Your task to perform on an android device: open app "LinkedIn" Image 0: 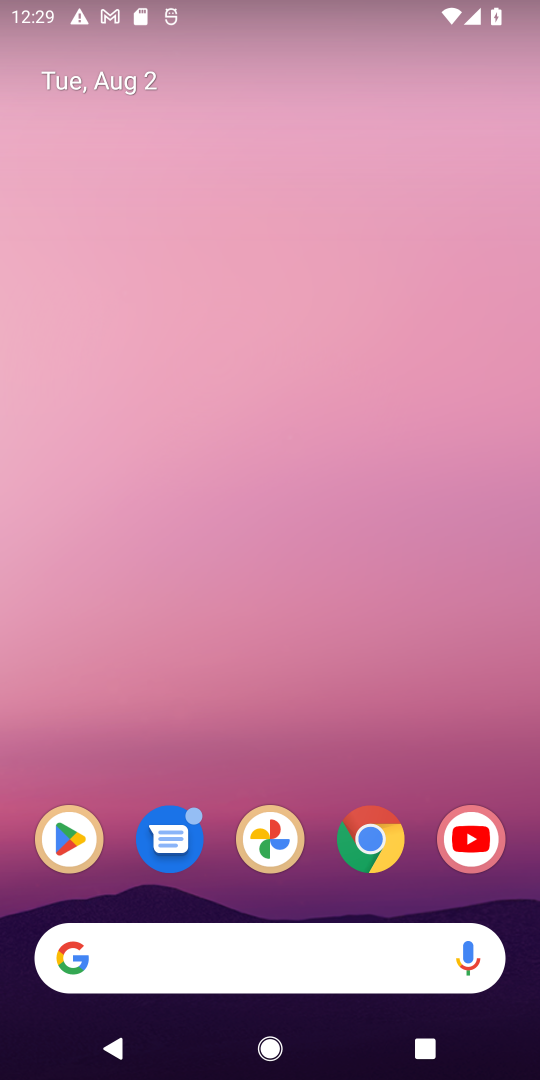
Step 0: click (59, 841)
Your task to perform on an android device: open app "LinkedIn" Image 1: 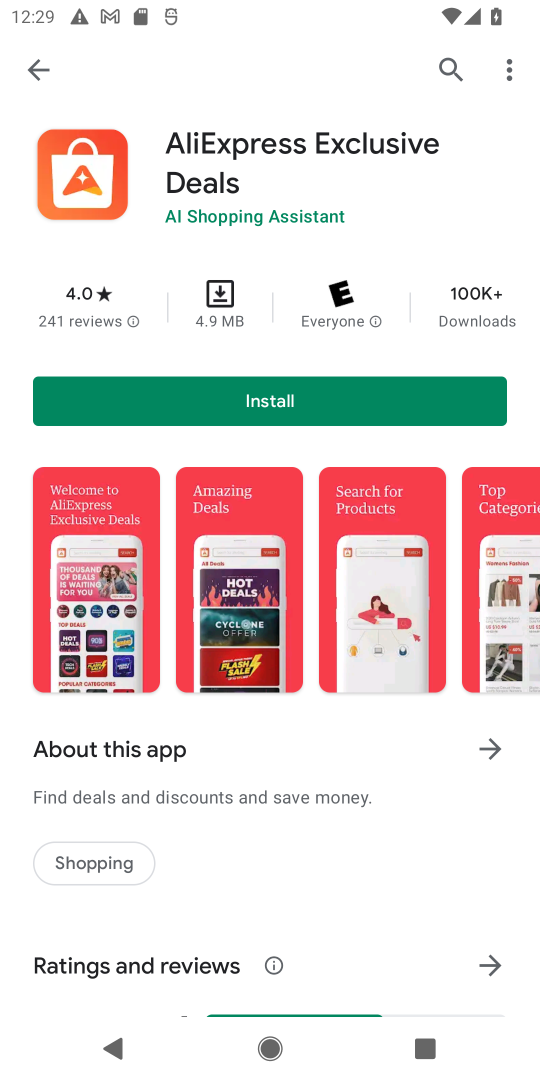
Step 1: click (442, 69)
Your task to perform on an android device: open app "LinkedIn" Image 2: 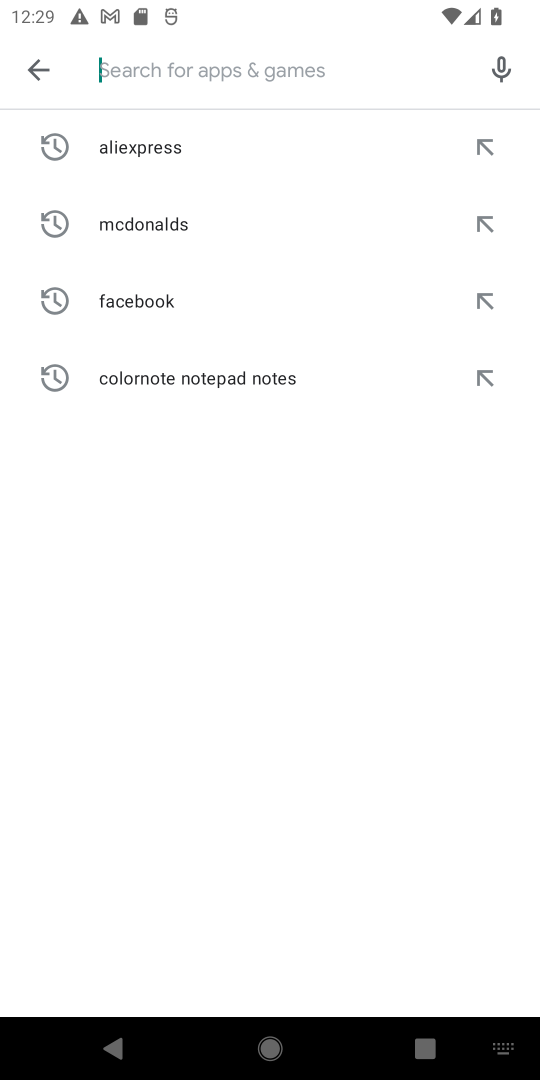
Step 2: type "linkedin"
Your task to perform on an android device: open app "LinkedIn" Image 3: 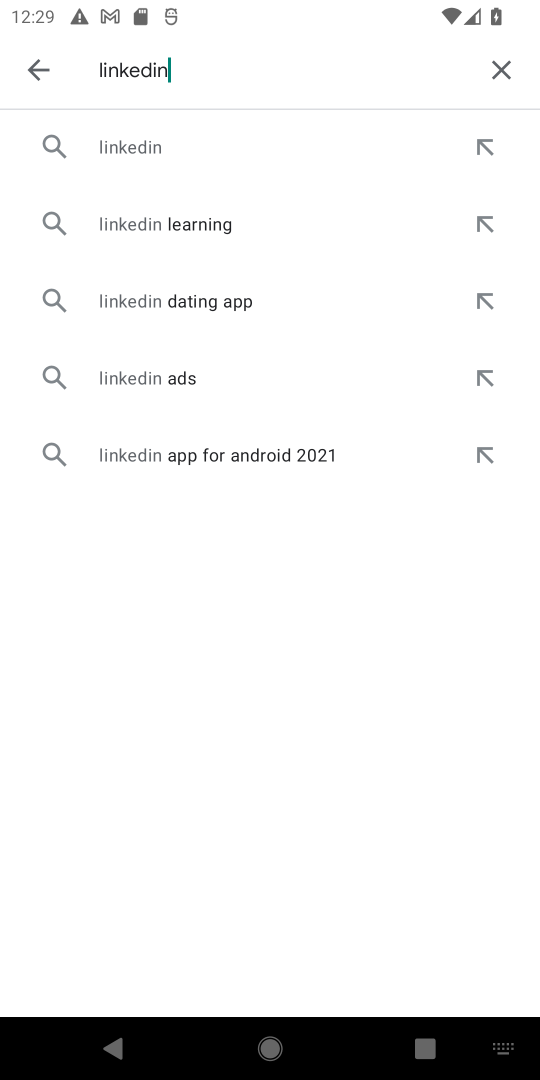
Step 3: click (202, 146)
Your task to perform on an android device: open app "LinkedIn" Image 4: 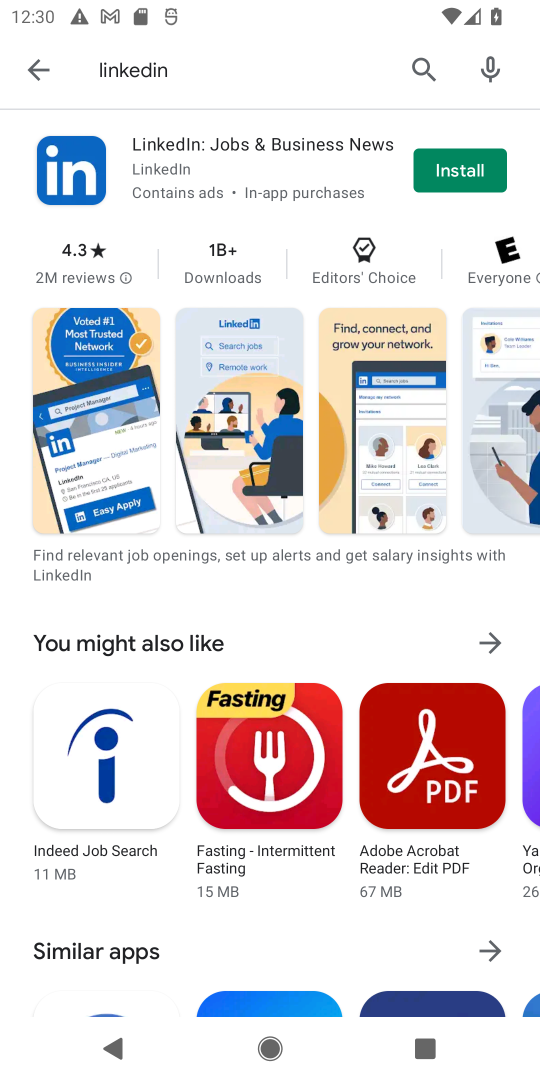
Step 4: task complete